Your task to perform on an android device: Go to Maps Image 0: 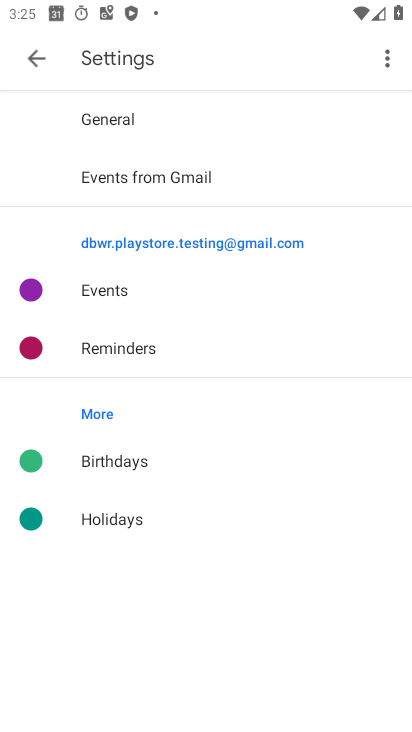
Step 0: press home button
Your task to perform on an android device: Go to Maps Image 1: 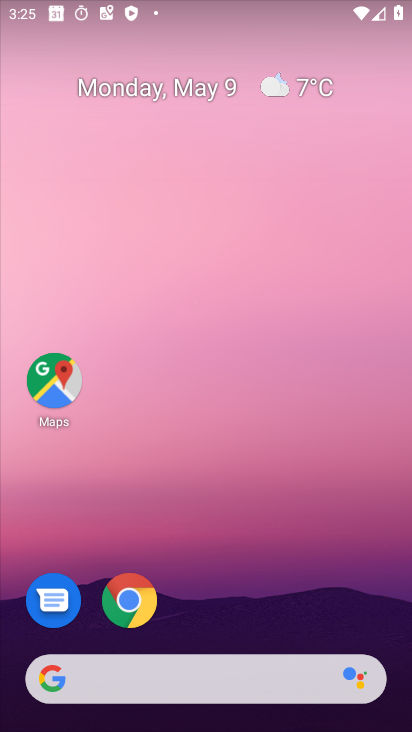
Step 1: click (55, 382)
Your task to perform on an android device: Go to Maps Image 2: 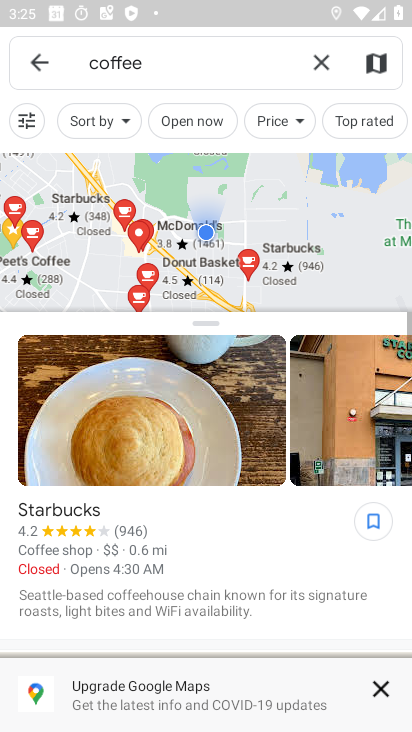
Step 2: task complete